Your task to perform on an android device: read, delete, or share a saved page in the chrome app Image 0: 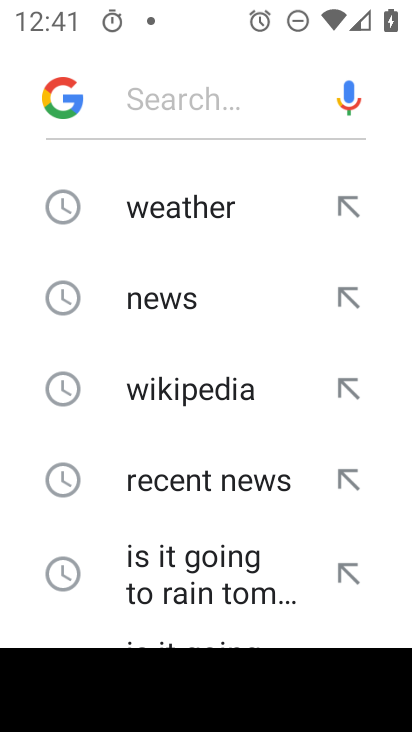
Step 0: press back button
Your task to perform on an android device: read, delete, or share a saved page in the chrome app Image 1: 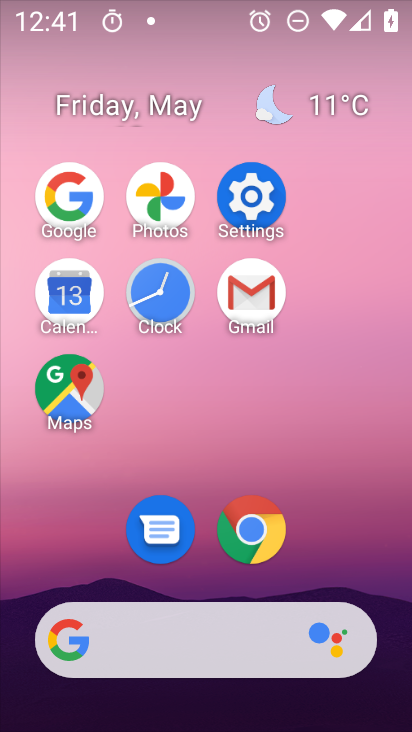
Step 1: click (270, 523)
Your task to perform on an android device: read, delete, or share a saved page in the chrome app Image 2: 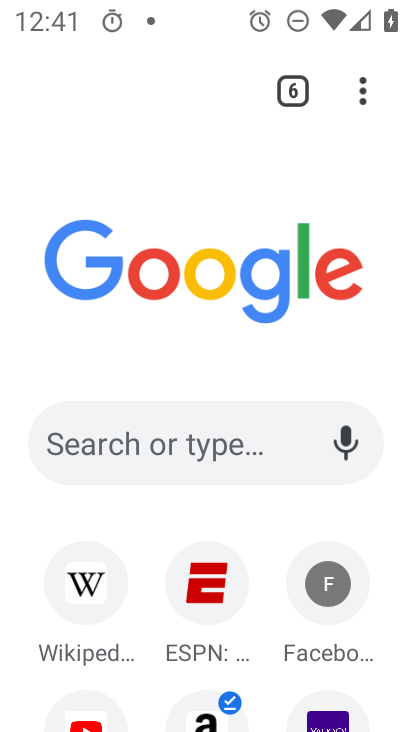
Step 2: click (365, 88)
Your task to perform on an android device: read, delete, or share a saved page in the chrome app Image 3: 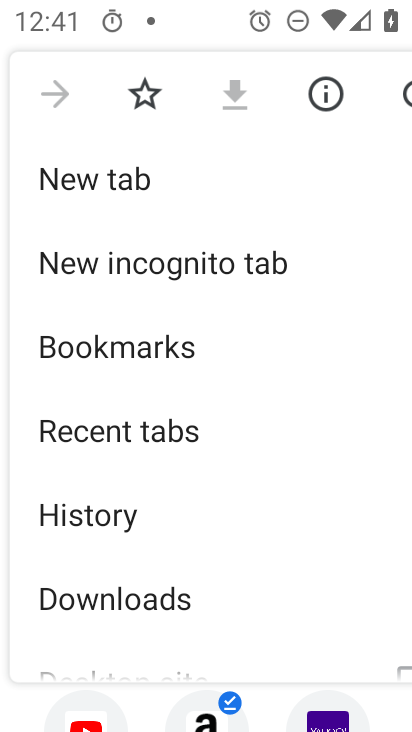
Step 3: drag from (229, 568) to (236, 243)
Your task to perform on an android device: read, delete, or share a saved page in the chrome app Image 4: 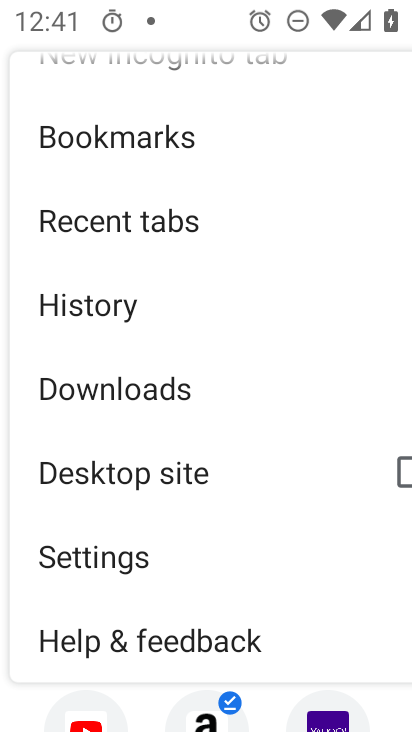
Step 4: click (220, 374)
Your task to perform on an android device: read, delete, or share a saved page in the chrome app Image 5: 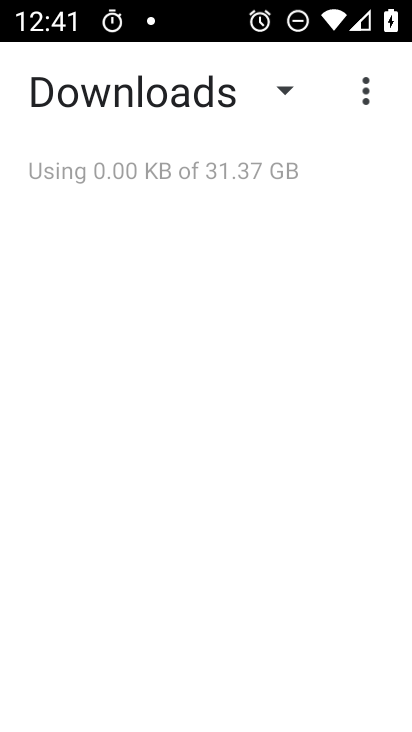
Step 5: task complete